Your task to perform on an android device: Toggle the flashlight Image 0: 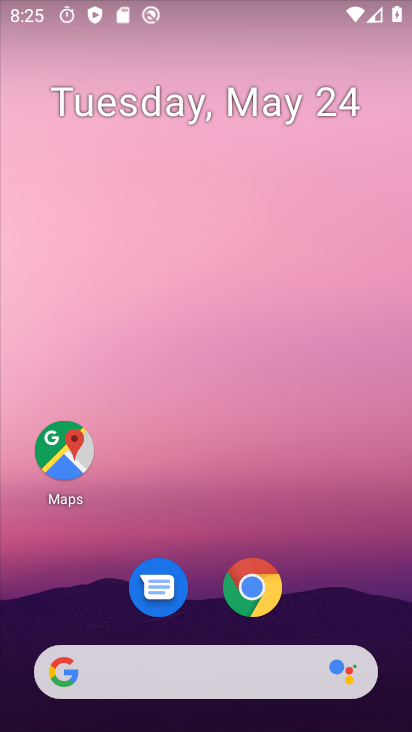
Step 0: drag from (319, 582) to (270, 214)
Your task to perform on an android device: Toggle the flashlight Image 1: 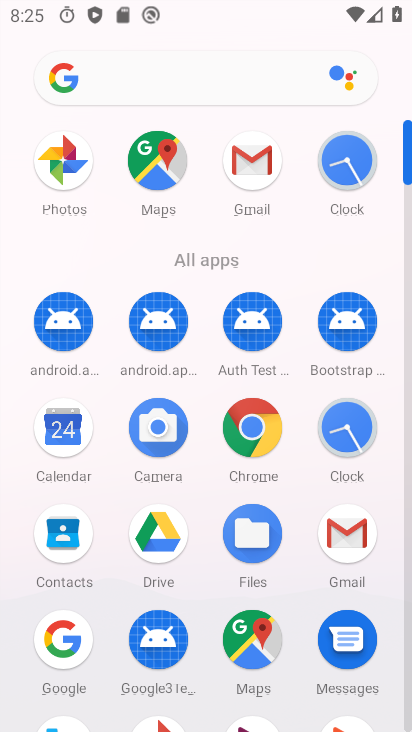
Step 1: drag from (204, 553) to (221, 395)
Your task to perform on an android device: Toggle the flashlight Image 2: 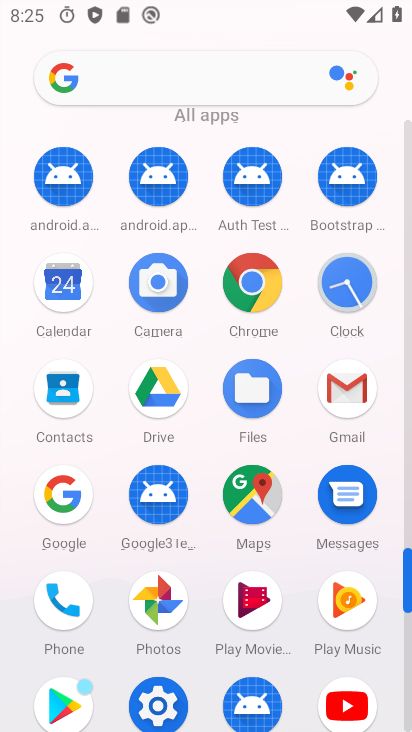
Step 2: drag from (210, 484) to (222, 347)
Your task to perform on an android device: Toggle the flashlight Image 3: 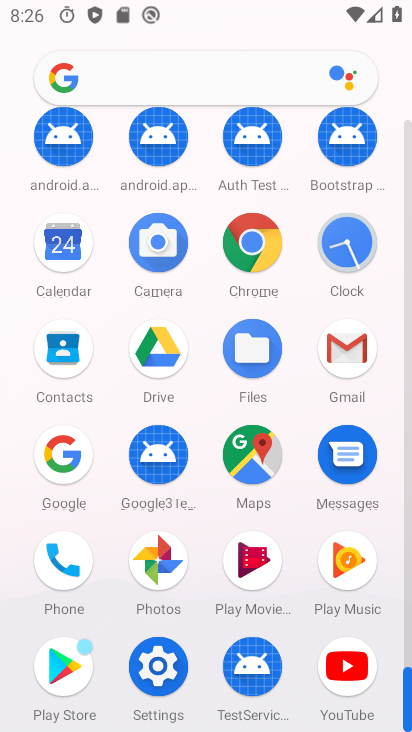
Step 3: click (158, 666)
Your task to perform on an android device: Toggle the flashlight Image 4: 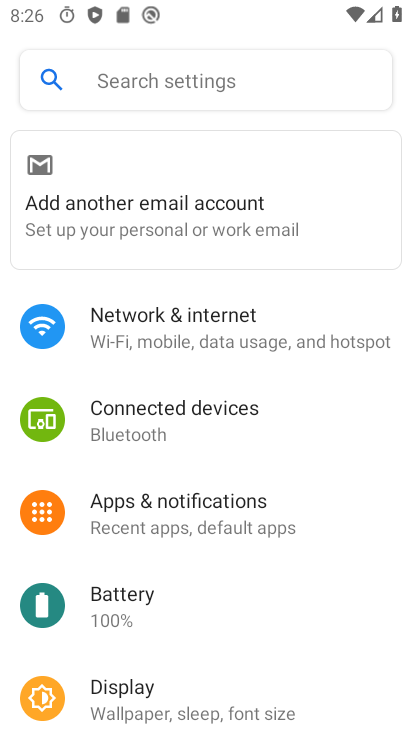
Step 4: drag from (174, 572) to (232, 490)
Your task to perform on an android device: Toggle the flashlight Image 5: 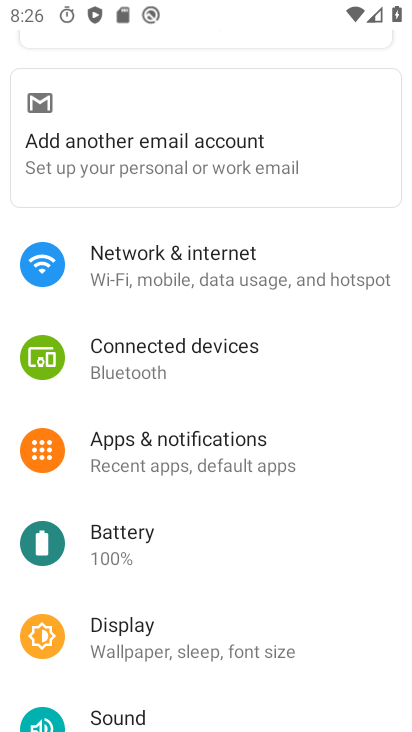
Step 5: drag from (166, 607) to (232, 529)
Your task to perform on an android device: Toggle the flashlight Image 6: 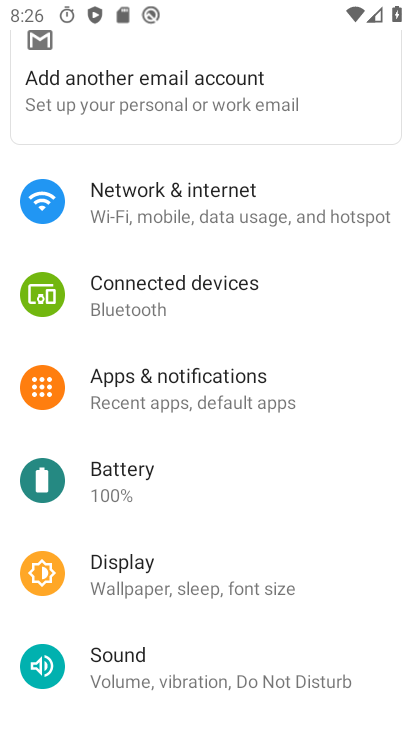
Step 6: drag from (165, 634) to (249, 529)
Your task to perform on an android device: Toggle the flashlight Image 7: 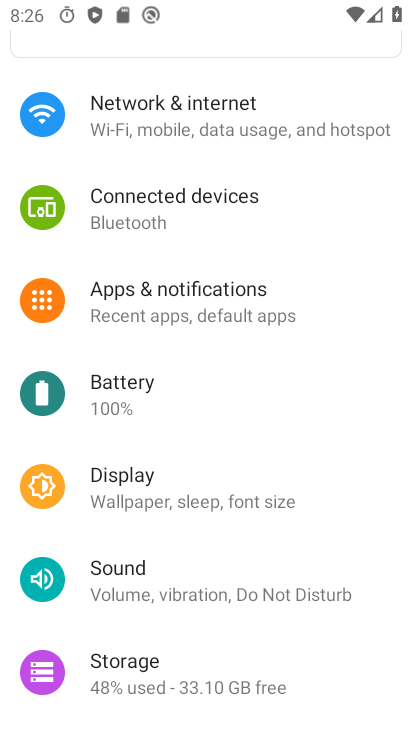
Step 7: drag from (197, 555) to (250, 408)
Your task to perform on an android device: Toggle the flashlight Image 8: 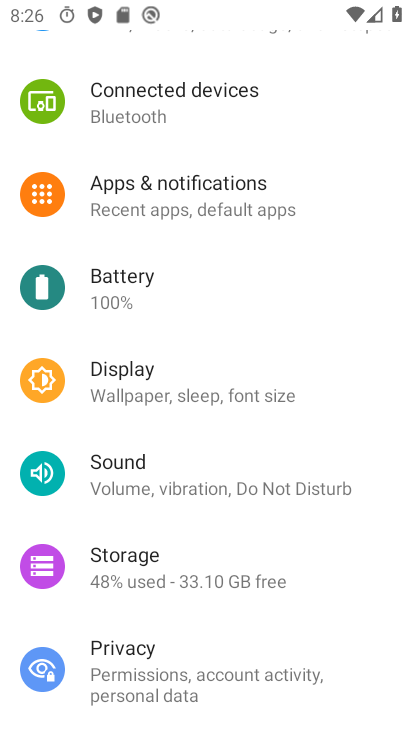
Step 8: click (210, 402)
Your task to perform on an android device: Toggle the flashlight Image 9: 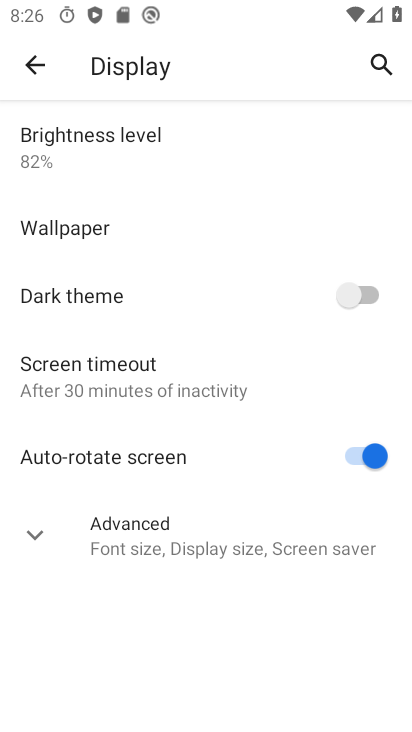
Step 9: click (149, 399)
Your task to perform on an android device: Toggle the flashlight Image 10: 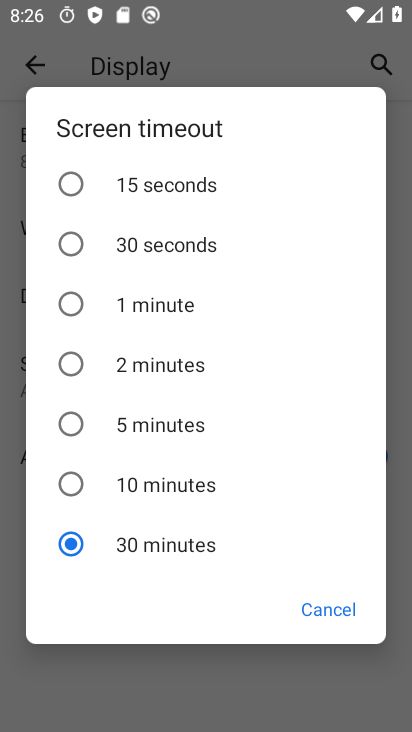
Step 10: click (334, 612)
Your task to perform on an android device: Toggle the flashlight Image 11: 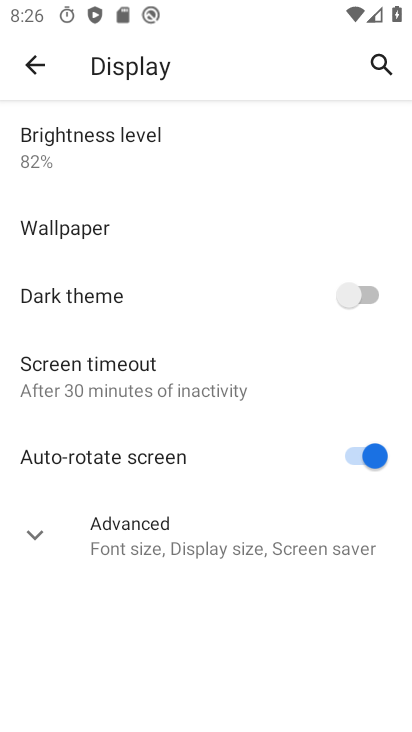
Step 11: click (133, 541)
Your task to perform on an android device: Toggle the flashlight Image 12: 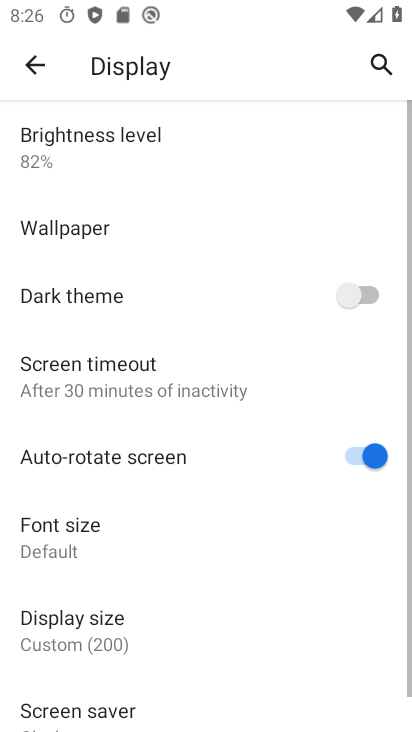
Step 12: drag from (159, 611) to (174, 528)
Your task to perform on an android device: Toggle the flashlight Image 13: 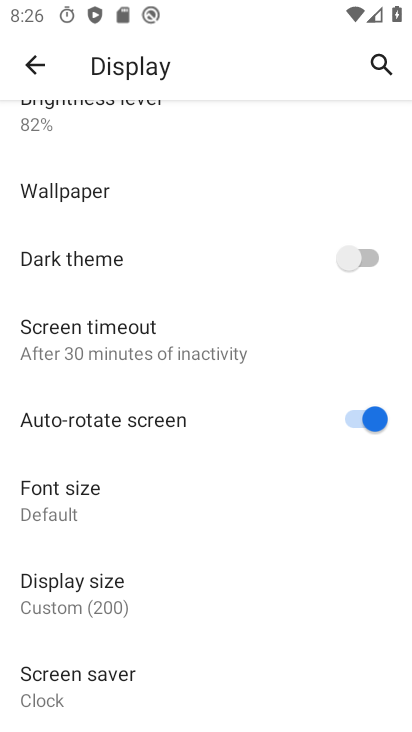
Step 13: drag from (159, 623) to (187, 547)
Your task to perform on an android device: Toggle the flashlight Image 14: 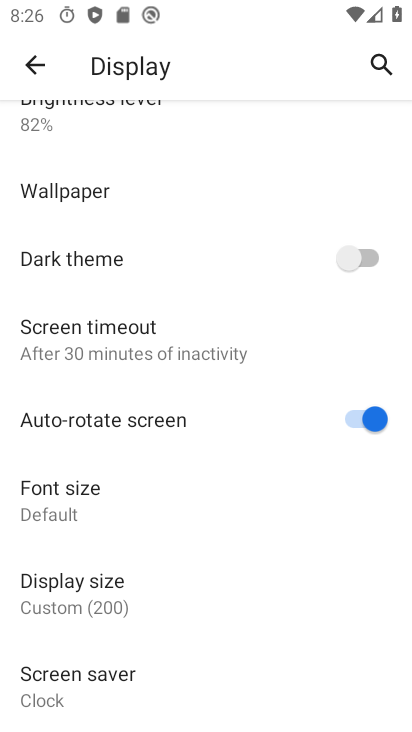
Step 14: press back button
Your task to perform on an android device: Toggle the flashlight Image 15: 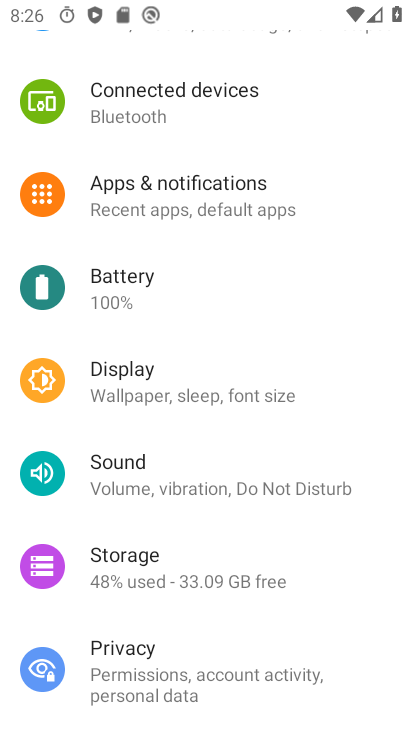
Step 15: drag from (179, 542) to (219, 440)
Your task to perform on an android device: Toggle the flashlight Image 16: 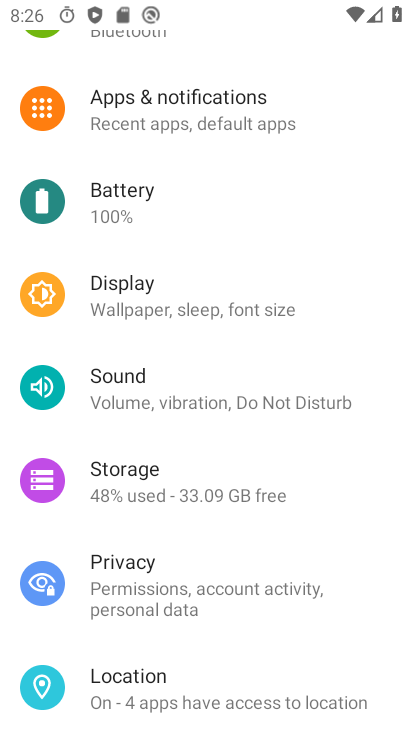
Step 16: drag from (185, 542) to (231, 443)
Your task to perform on an android device: Toggle the flashlight Image 17: 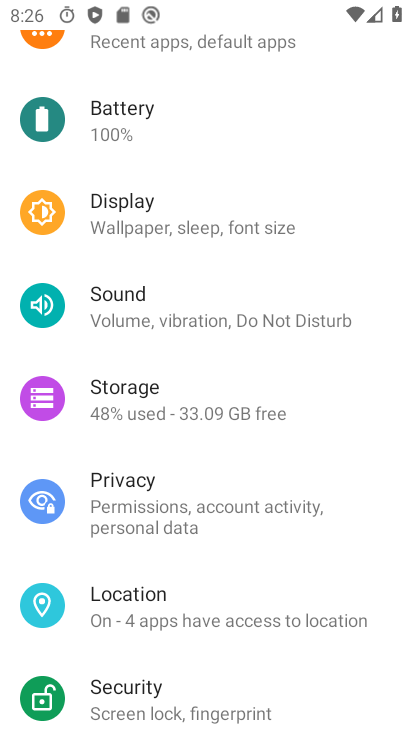
Step 17: drag from (175, 575) to (216, 478)
Your task to perform on an android device: Toggle the flashlight Image 18: 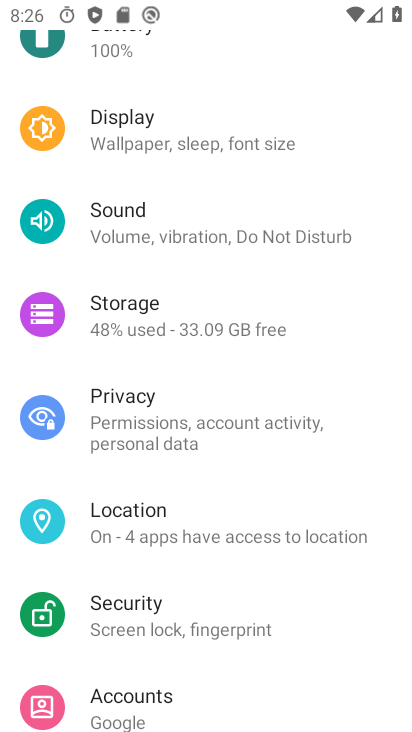
Step 18: drag from (148, 576) to (222, 480)
Your task to perform on an android device: Toggle the flashlight Image 19: 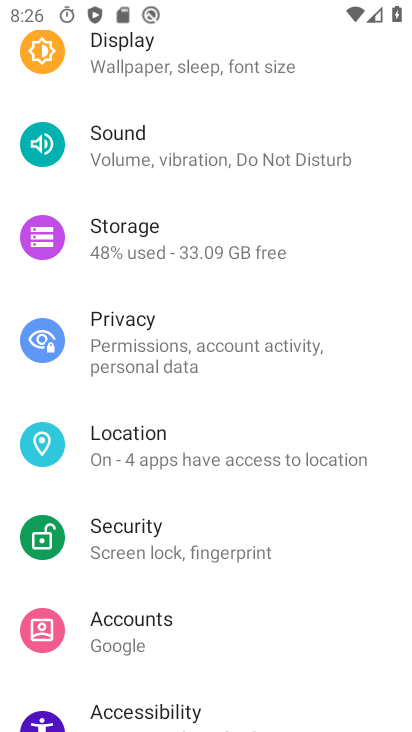
Step 19: drag from (169, 592) to (244, 482)
Your task to perform on an android device: Toggle the flashlight Image 20: 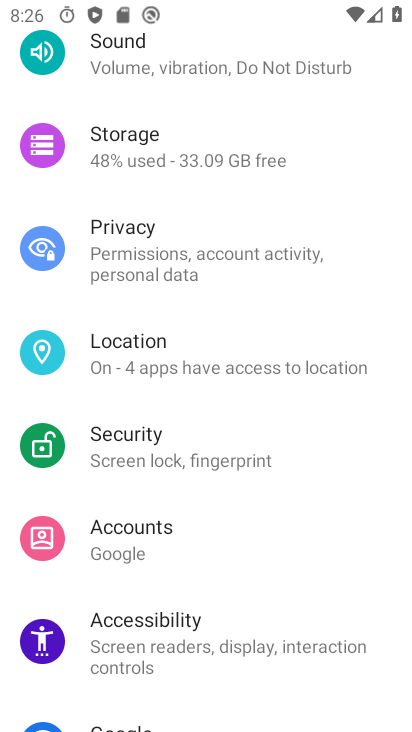
Step 20: drag from (172, 570) to (255, 475)
Your task to perform on an android device: Toggle the flashlight Image 21: 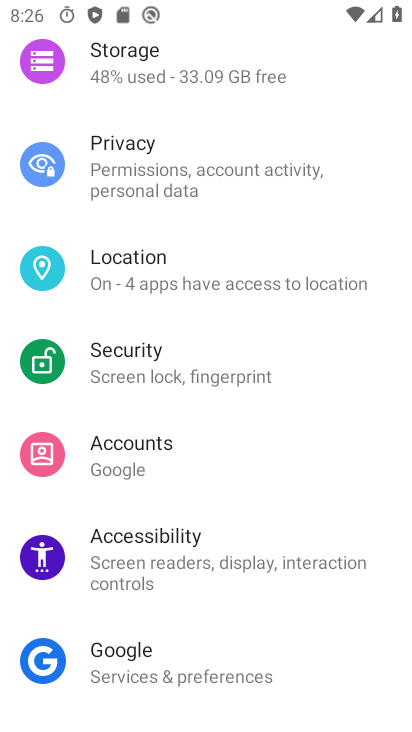
Step 21: drag from (212, 613) to (298, 499)
Your task to perform on an android device: Toggle the flashlight Image 22: 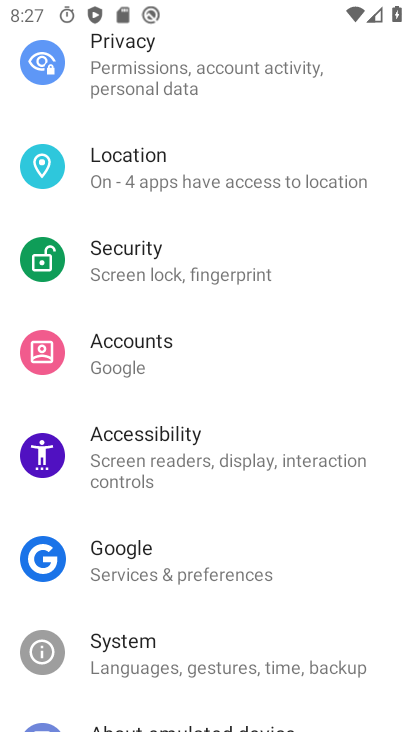
Step 22: drag from (221, 600) to (293, 509)
Your task to perform on an android device: Toggle the flashlight Image 23: 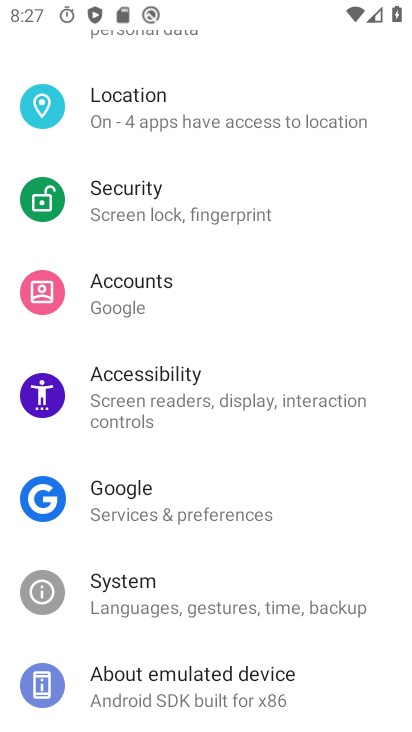
Step 23: click (191, 402)
Your task to perform on an android device: Toggle the flashlight Image 24: 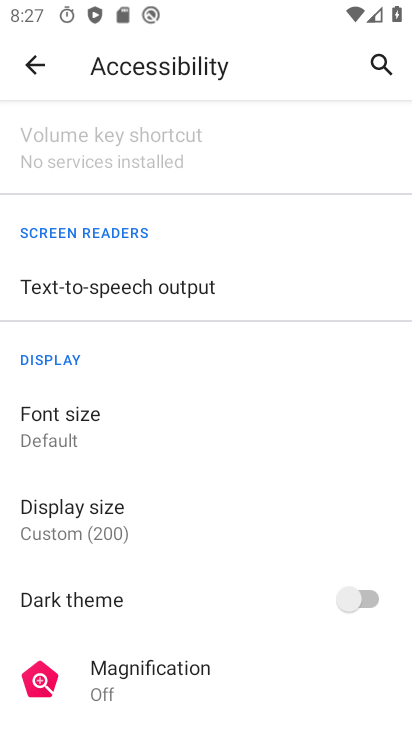
Step 24: task complete